Your task to perform on an android device: toggle notifications settings in the gmail app Image 0: 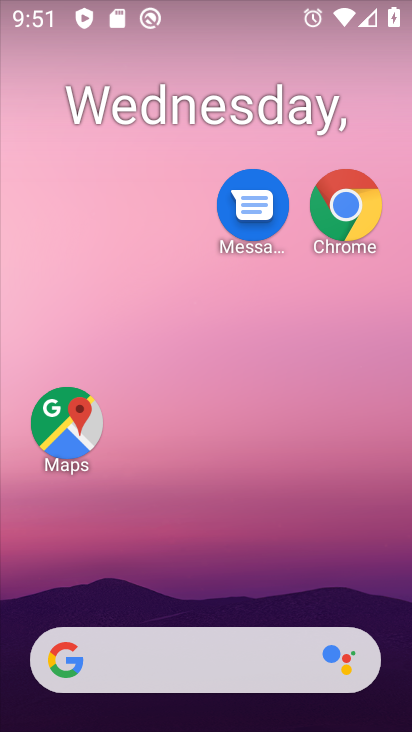
Step 0: drag from (405, 244) to (263, 80)
Your task to perform on an android device: toggle notifications settings in the gmail app Image 1: 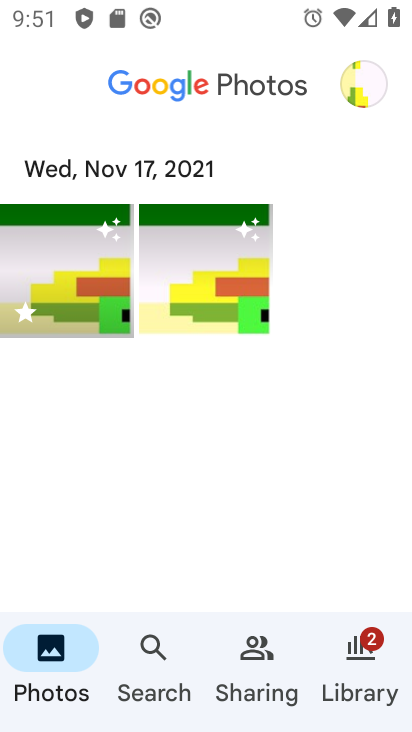
Step 1: press home button
Your task to perform on an android device: toggle notifications settings in the gmail app Image 2: 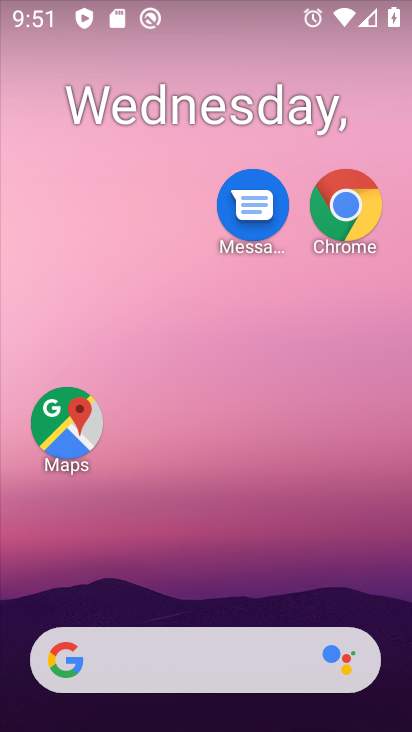
Step 2: drag from (175, 590) to (258, 120)
Your task to perform on an android device: toggle notifications settings in the gmail app Image 3: 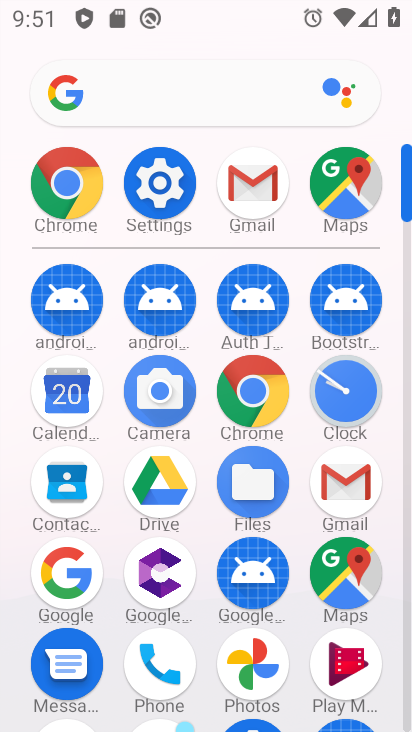
Step 3: click (336, 483)
Your task to perform on an android device: toggle notifications settings in the gmail app Image 4: 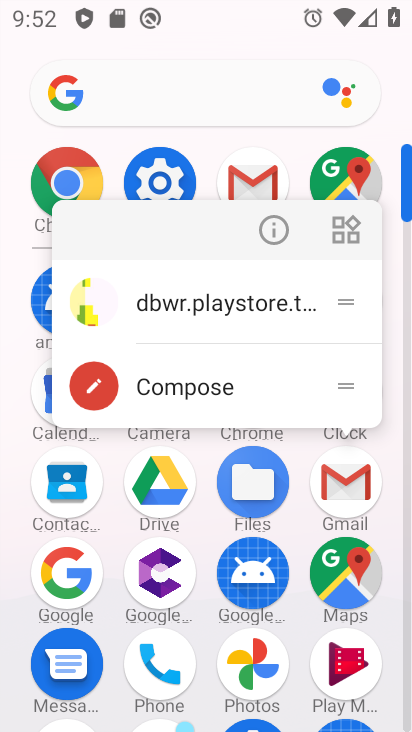
Step 4: click (287, 221)
Your task to perform on an android device: toggle notifications settings in the gmail app Image 5: 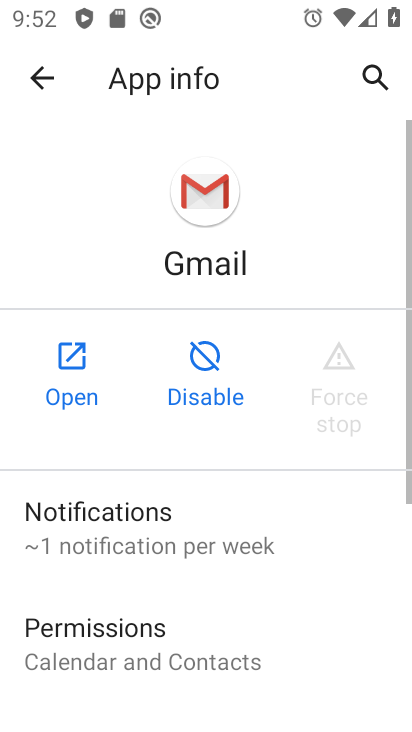
Step 5: click (65, 366)
Your task to perform on an android device: toggle notifications settings in the gmail app Image 6: 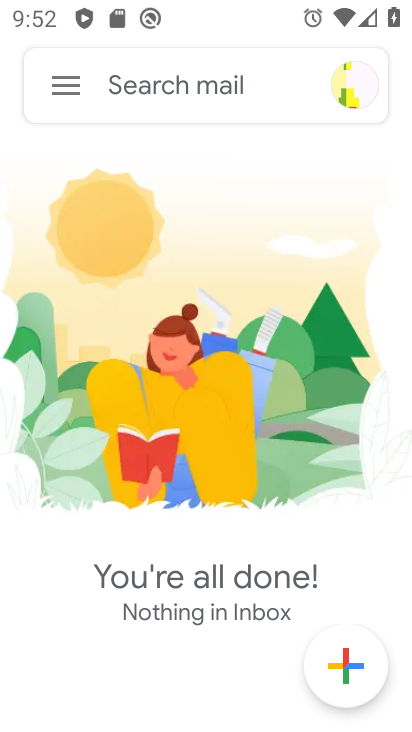
Step 6: click (67, 86)
Your task to perform on an android device: toggle notifications settings in the gmail app Image 7: 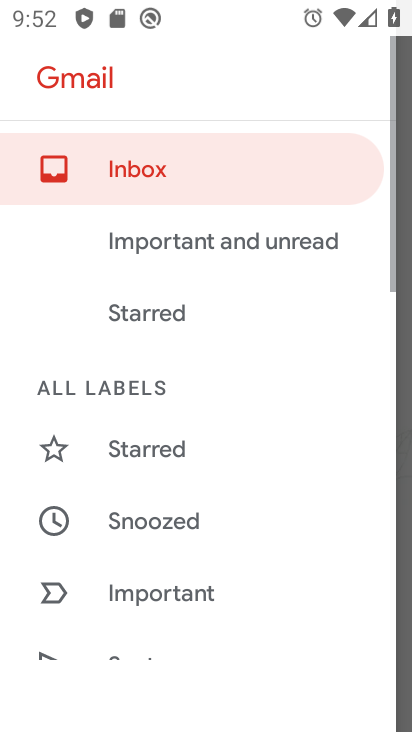
Step 7: drag from (190, 579) to (266, 65)
Your task to perform on an android device: toggle notifications settings in the gmail app Image 8: 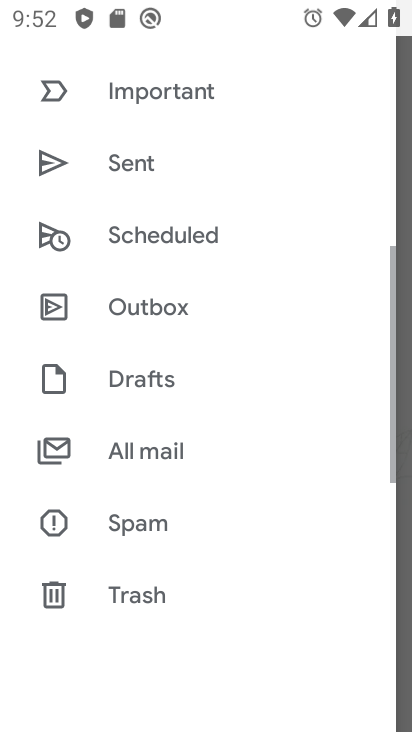
Step 8: drag from (213, 657) to (406, 17)
Your task to perform on an android device: toggle notifications settings in the gmail app Image 9: 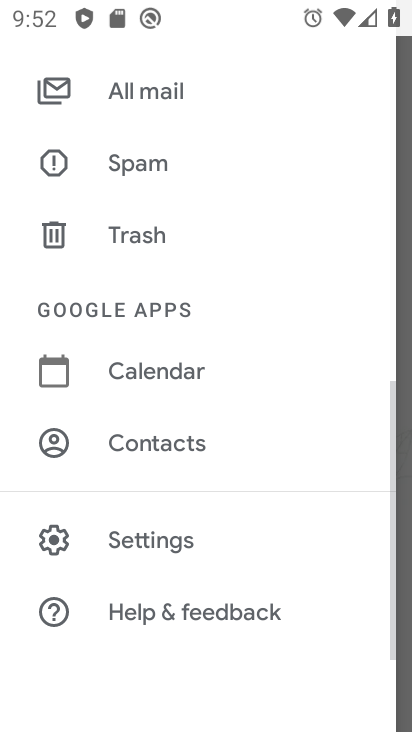
Step 9: click (151, 539)
Your task to perform on an android device: toggle notifications settings in the gmail app Image 10: 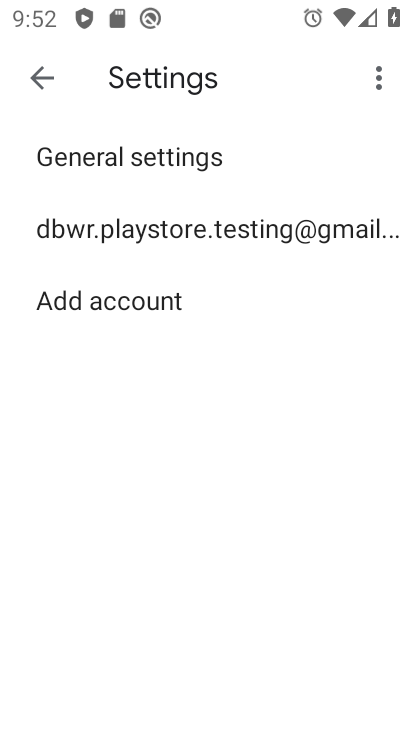
Step 10: click (195, 225)
Your task to perform on an android device: toggle notifications settings in the gmail app Image 11: 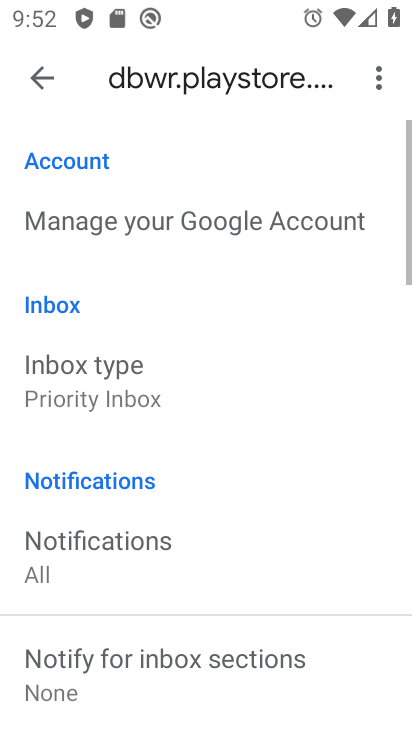
Step 11: drag from (148, 646) to (374, 108)
Your task to perform on an android device: toggle notifications settings in the gmail app Image 12: 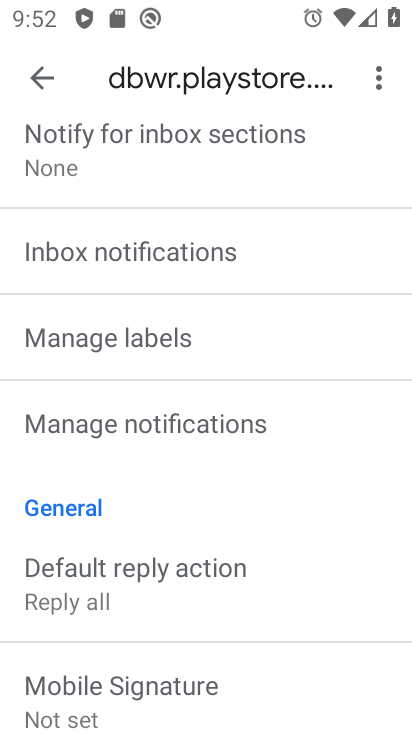
Step 12: click (152, 427)
Your task to perform on an android device: toggle notifications settings in the gmail app Image 13: 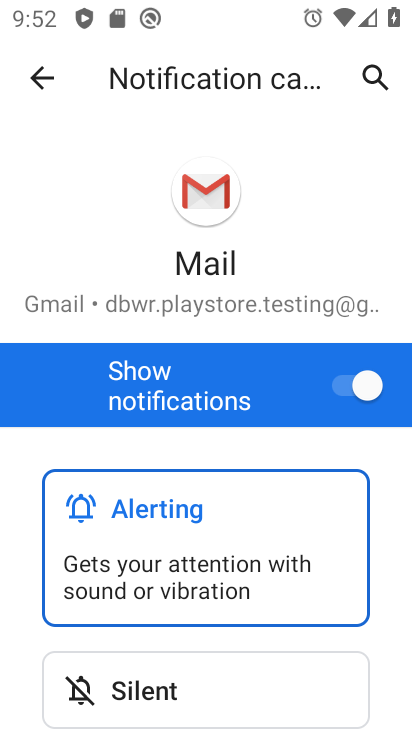
Step 13: drag from (269, 658) to (331, 270)
Your task to perform on an android device: toggle notifications settings in the gmail app Image 14: 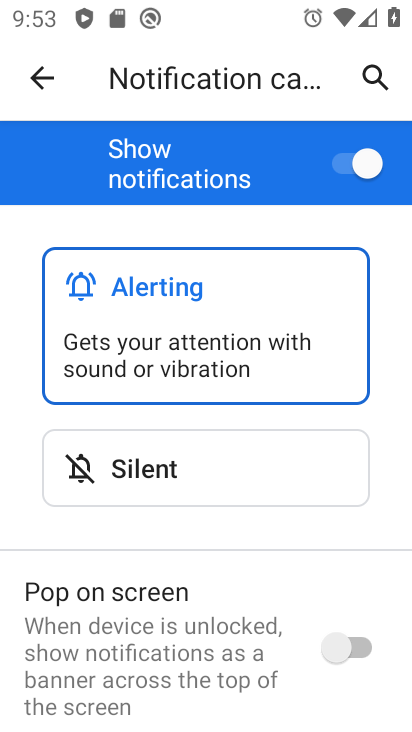
Step 14: click (336, 188)
Your task to perform on an android device: toggle notifications settings in the gmail app Image 15: 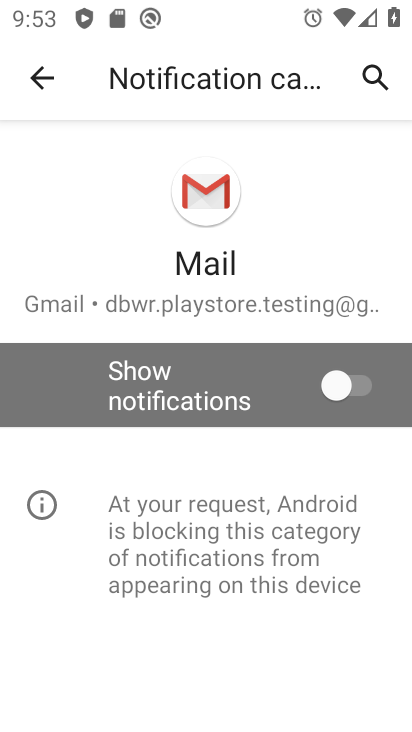
Step 15: task complete